Your task to perform on an android device: Toggle the flashlight Image 0: 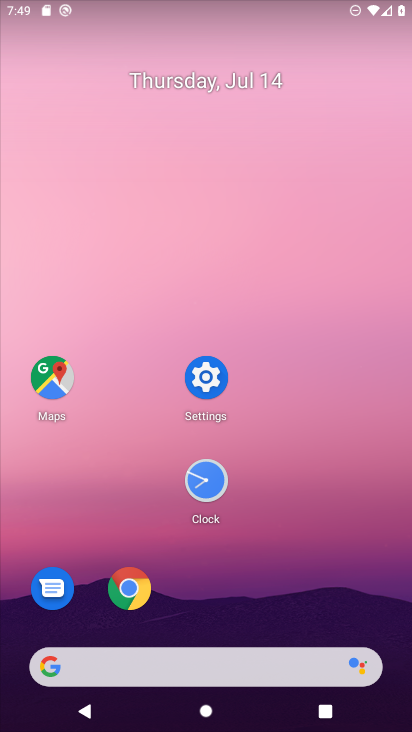
Step 0: click (379, 187)
Your task to perform on an android device: Toggle the flashlight Image 1: 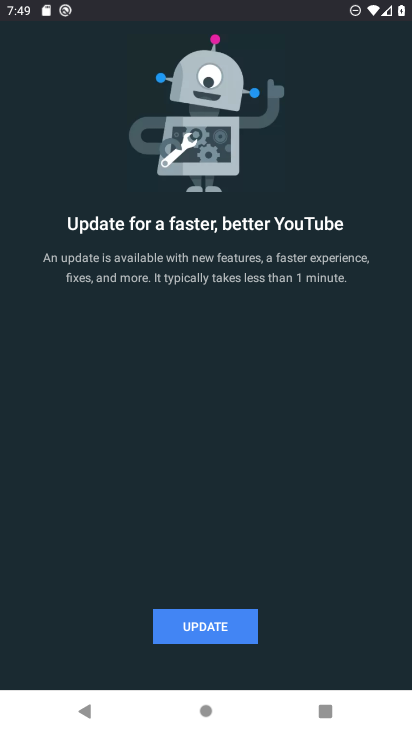
Step 1: task complete